Your task to perform on an android device: Go to display settings Image 0: 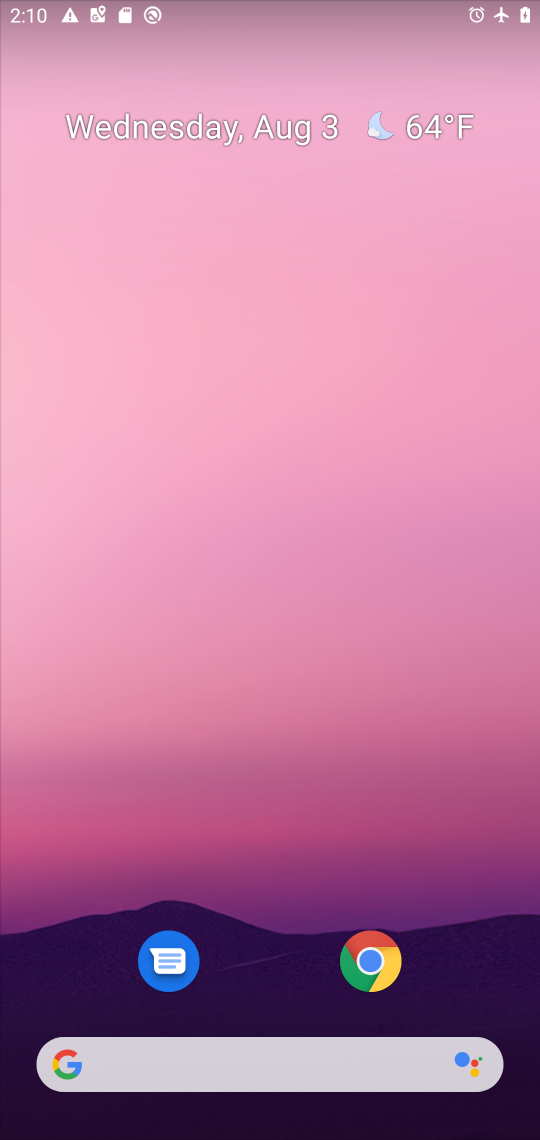
Step 0: drag from (265, 976) to (310, 102)
Your task to perform on an android device: Go to display settings Image 1: 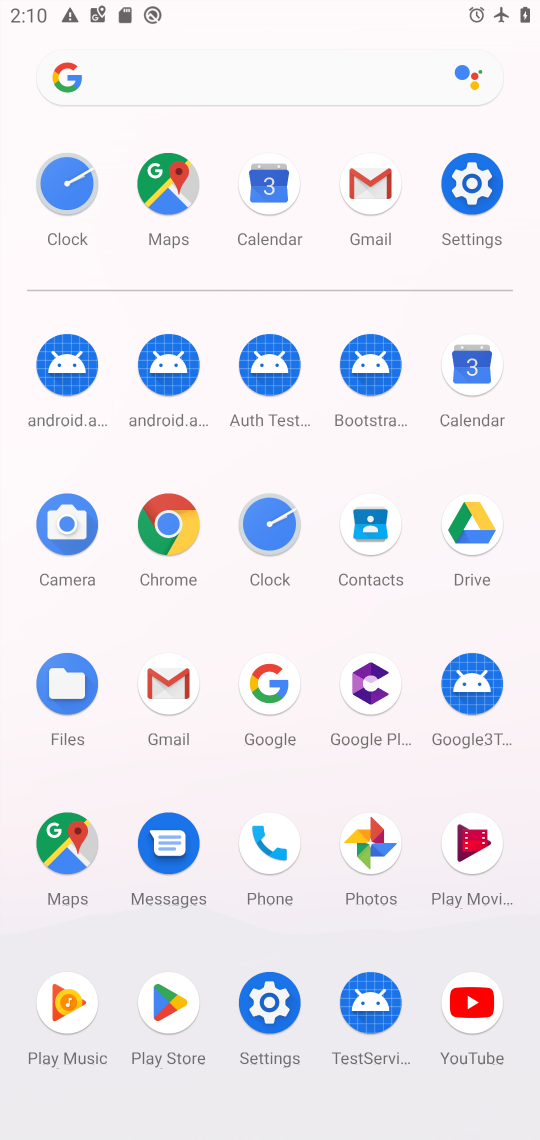
Step 1: click (475, 187)
Your task to perform on an android device: Go to display settings Image 2: 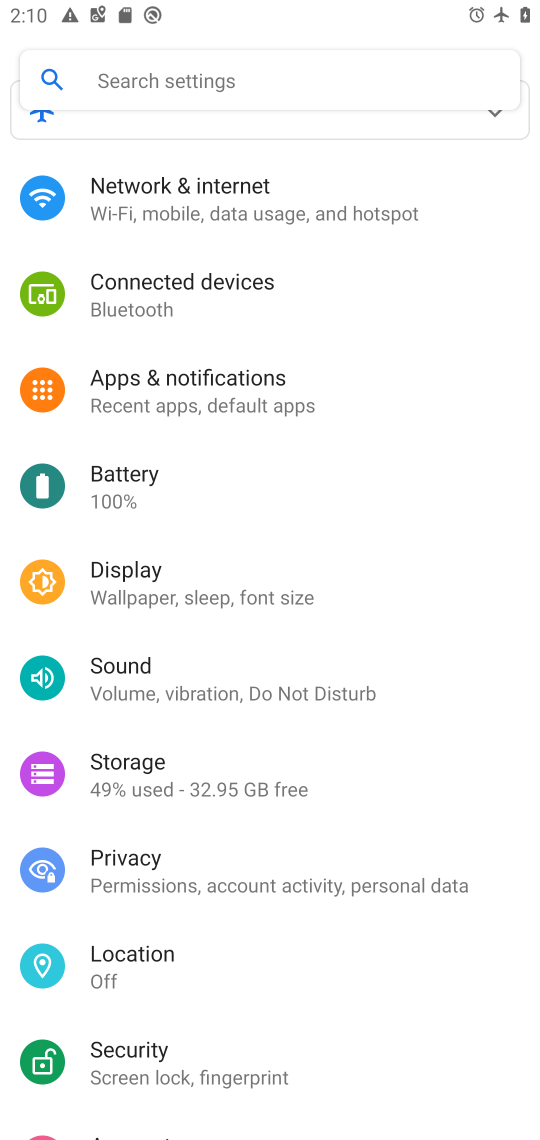
Step 2: click (177, 583)
Your task to perform on an android device: Go to display settings Image 3: 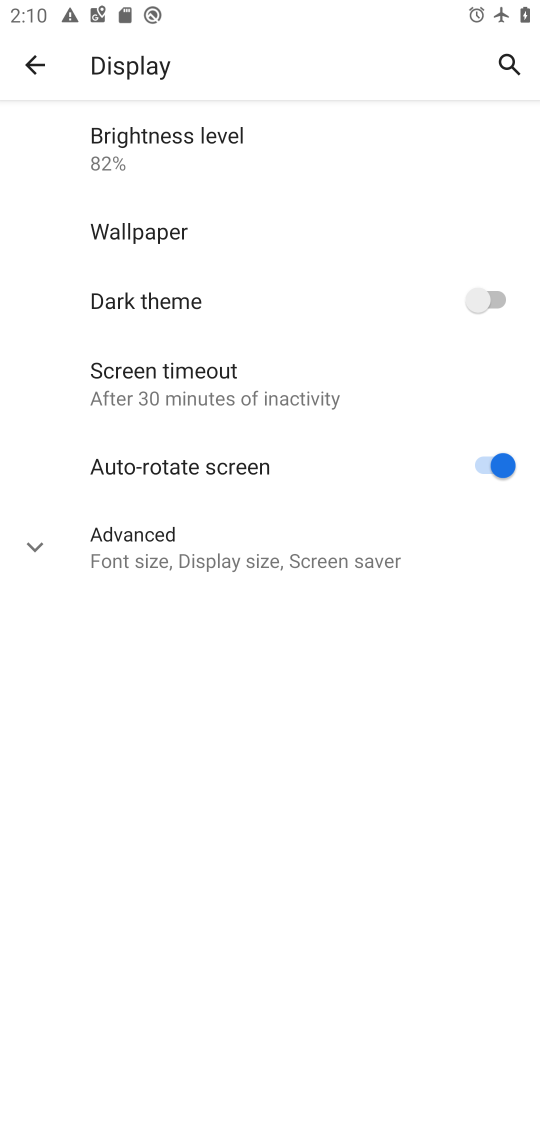
Step 3: task complete